Your task to perform on an android device: Open my contact list Image 0: 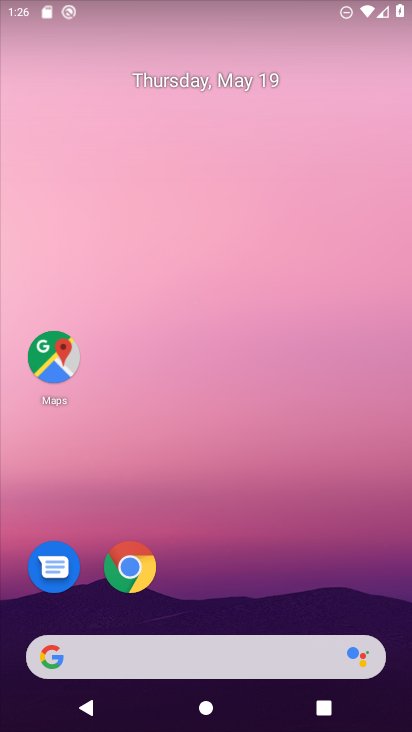
Step 0: drag from (247, 544) to (230, 222)
Your task to perform on an android device: Open my contact list Image 1: 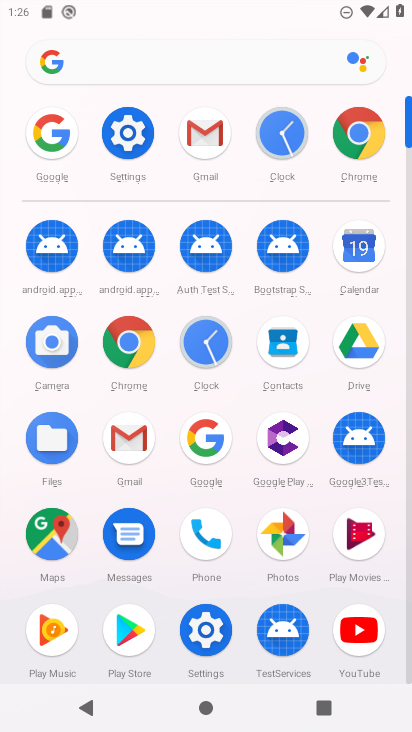
Step 1: click (277, 344)
Your task to perform on an android device: Open my contact list Image 2: 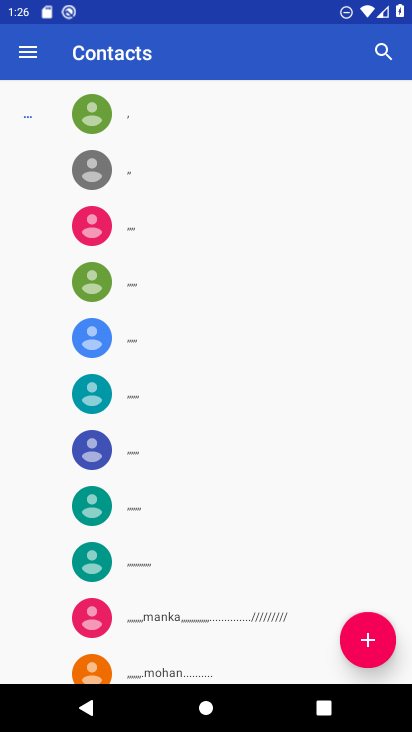
Step 2: task complete